Your task to perform on an android device: check the backup settings in the google photos Image 0: 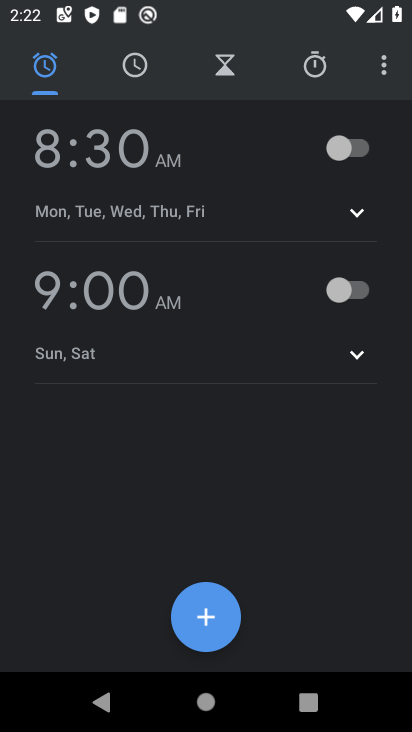
Step 0: press home button
Your task to perform on an android device: check the backup settings in the google photos Image 1: 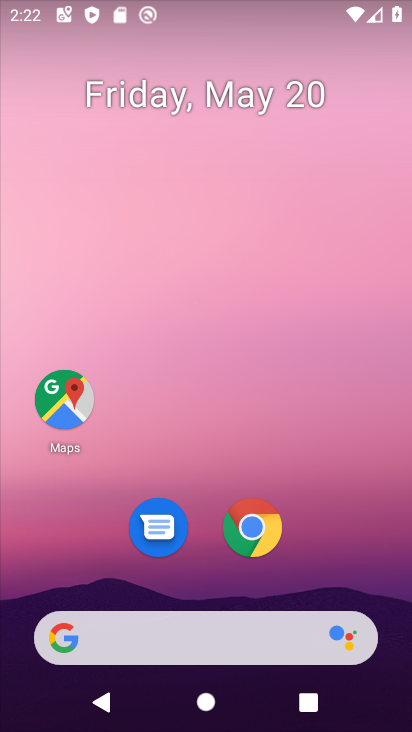
Step 1: drag from (173, 513) to (288, 28)
Your task to perform on an android device: check the backup settings in the google photos Image 2: 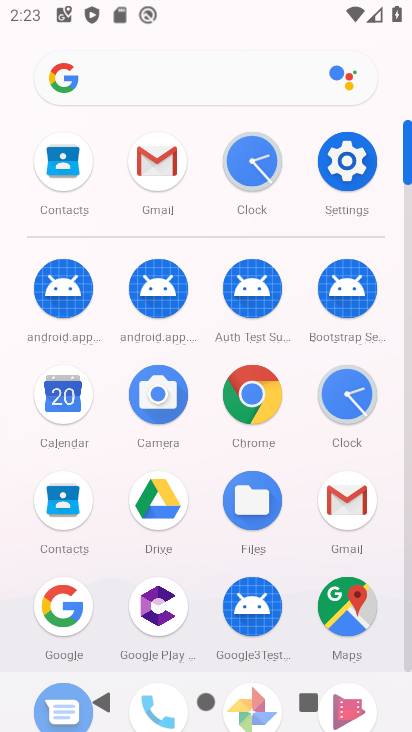
Step 2: drag from (279, 600) to (385, 21)
Your task to perform on an android device: check the backup settings in the google photos Image 3: 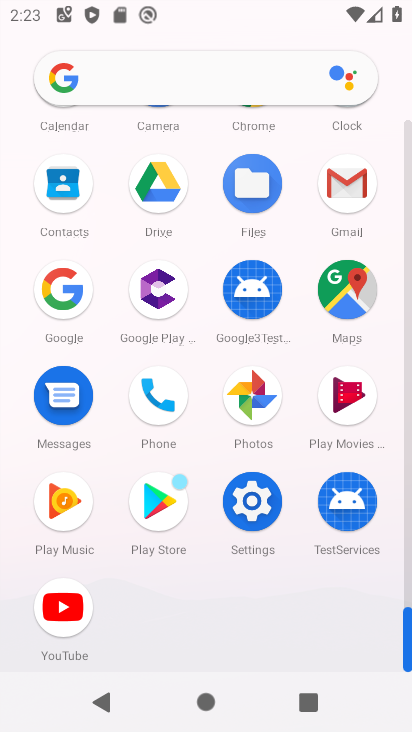
Step 3: click (257, 372)
Your task to perform on an android device: check the backup settings in the google photos Image 4: 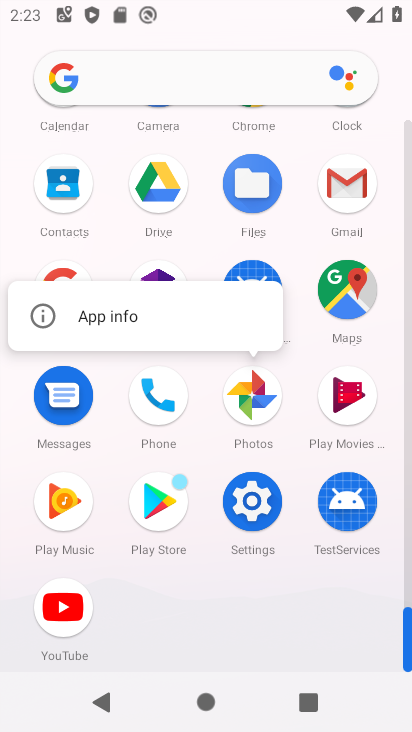
Step 4: click (258, 400)
Your task to perform on an android device: check the backup settings in the google photos Image 5: 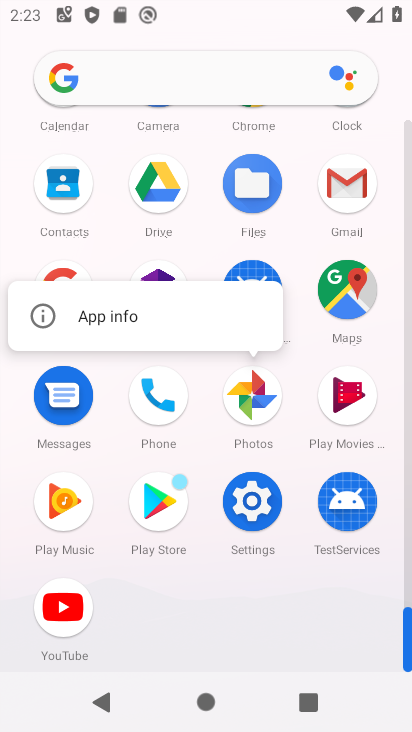
Step 5: click (258, 400)
Your task to perform on an android device: check the backup settings in the google photos Image 6: 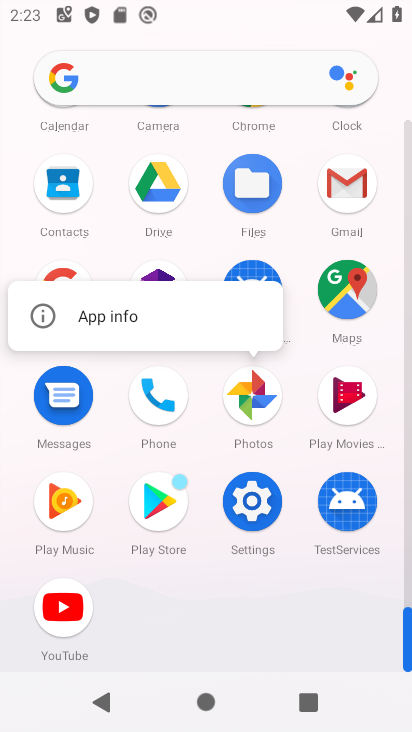
Step 6: click (258, 400)
Your task to perform on an android device: check the backup settings in the google photos Image 7: 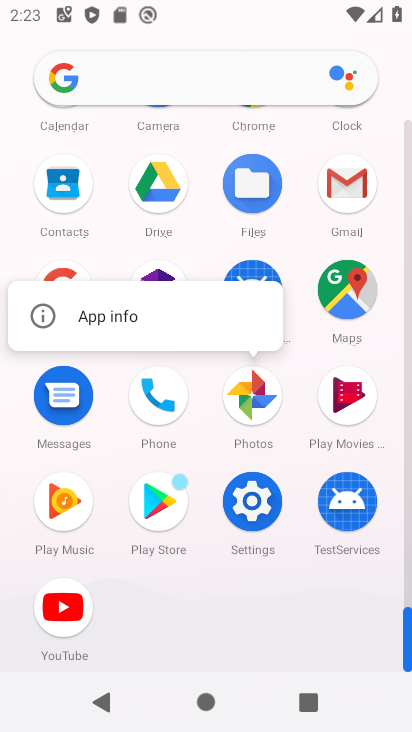
Step 7: click (267, 409)
Your task to perform on an android device: check the backup settings in the google photos Image 8: 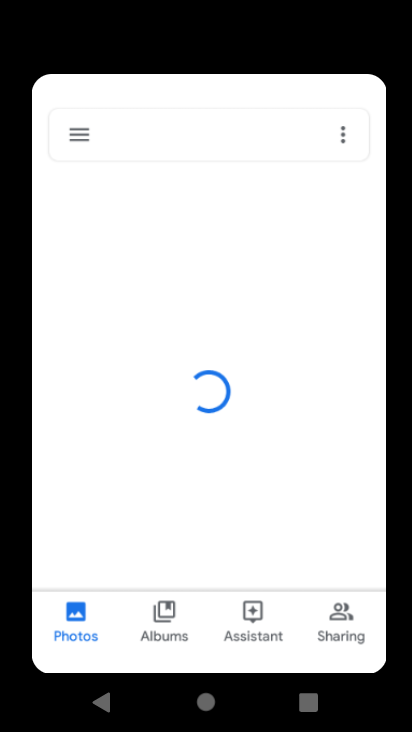
Step 8: click (267, 409)
Your task to perform on an android device: check the backup settings in the google photos Image 9: 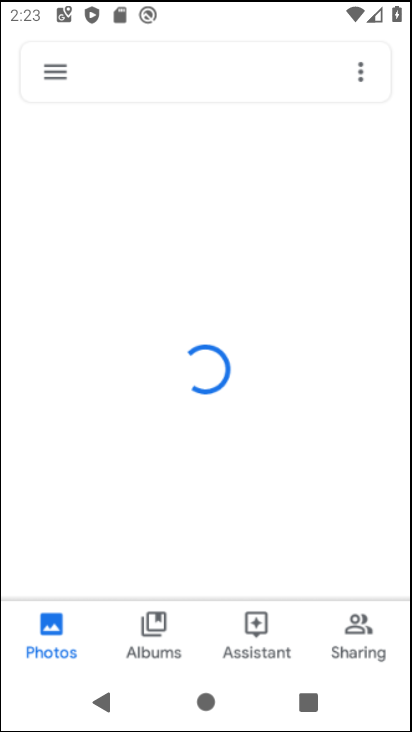
Step 9: click (267, 409)
Your task to perform on an android device: check the backup settings in the google photos Image 10: 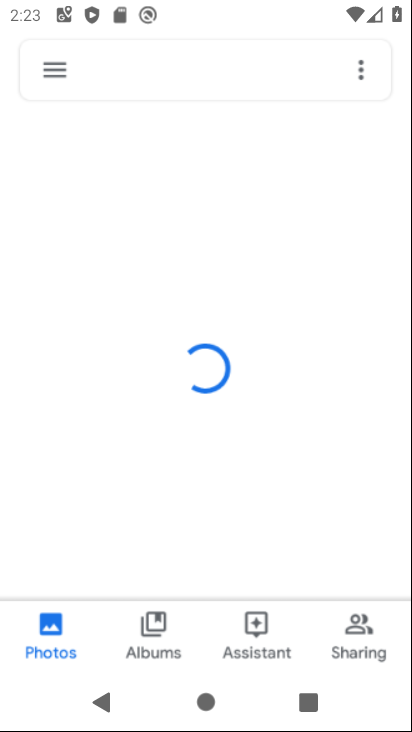
Step 10: click (267, 409)
Your task to perform on an android device: check the backup settings in the google photos Image 11: 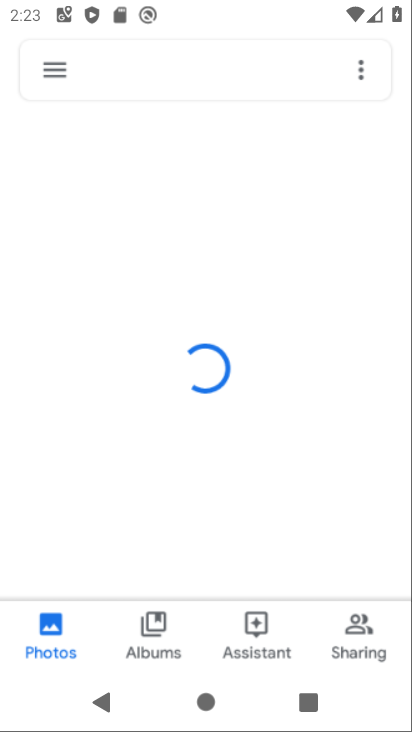
Step 11: click (267, 409)
Your task to perform on an android device: check the backup settings in the google photos Image 12: 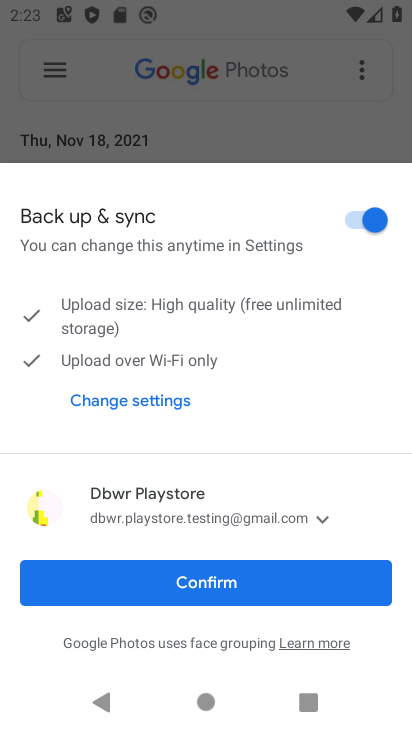
Step 12: click (346, 583)
Your task to perform on an android device: check the backup settings in the google photos Image 13: 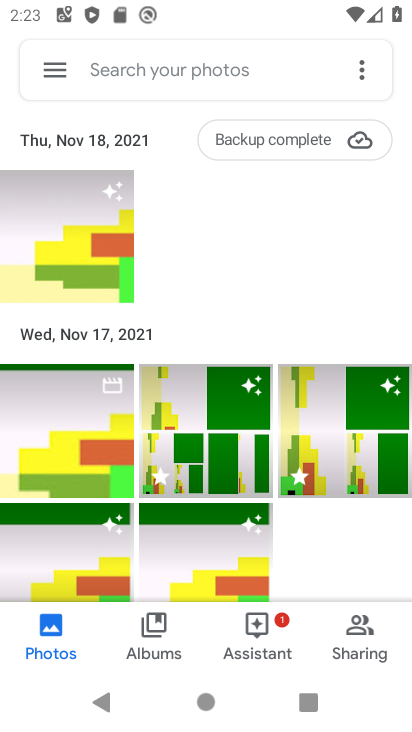
Step 13: click (361, 63)
Your task to perform on an android device: check the backup settings in the google photos Image 14: 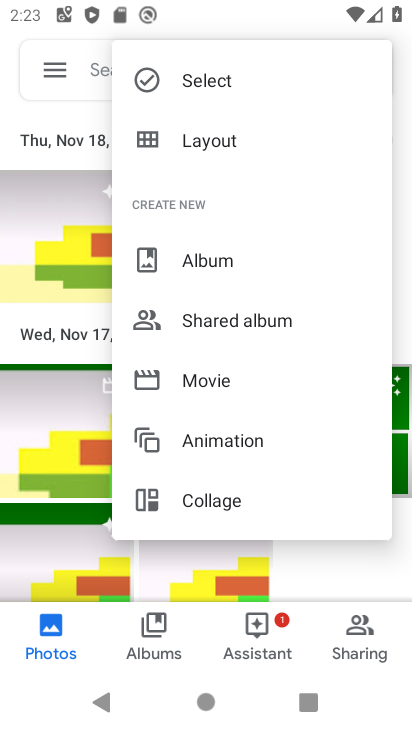
Step 14: click (51, 50)
Your task to perform on an android device: check the backup settings in the google photos Image 15: 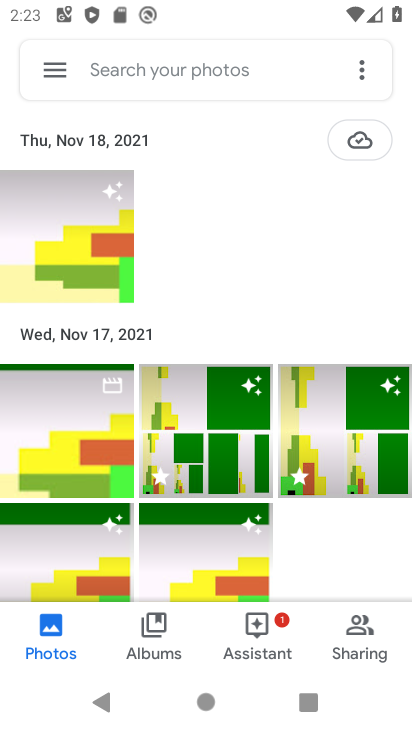
Step 15: click (55, 62)
Your task to perform on an android device: check the backup settings in the google photos Image 16: 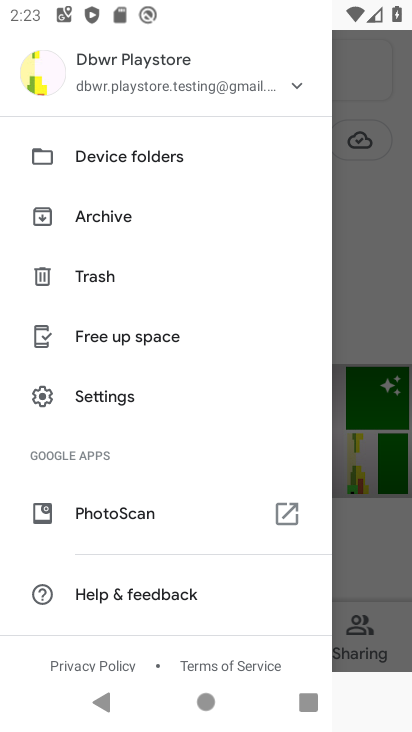
Step 16: click (231, 77)
Your task to perform on an android device: check the backup settings in the google photos Image 17: 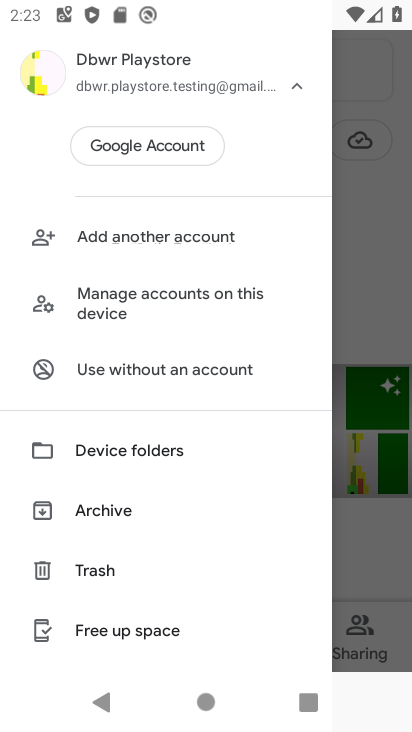
Step 17: drag from (140, 601) to (222, 98)
Your task to perform on an android device: check the backup settings in the google photos Image 18: 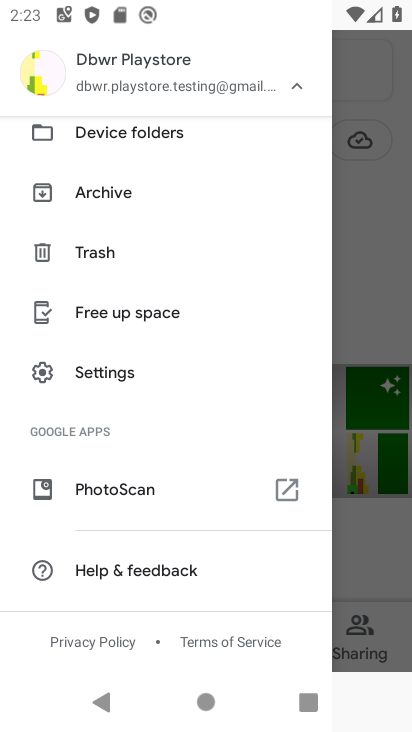
Step 18: click (142, 355)
Your task to perform on an android device: check the backup settings in the google photos Image 19: 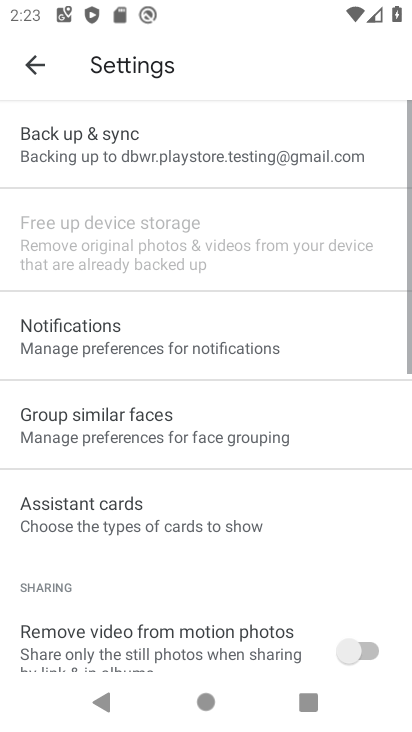
Step 19: click (279, 147)
Your task to perform on an android device: check the backup settings in the google photos Image 20: 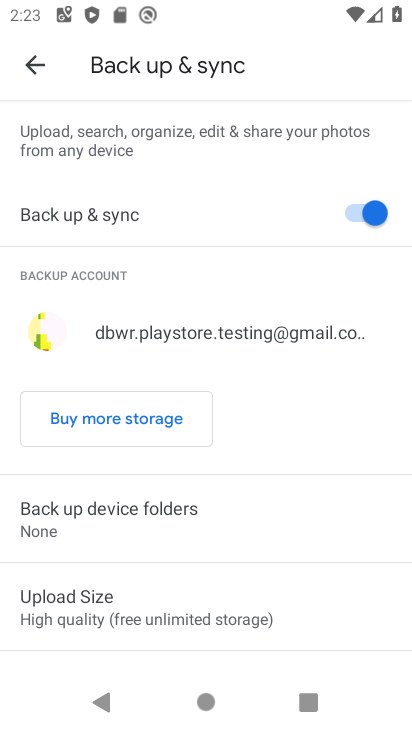
Step 20: task complete